Your task to perform on an android device: Open calendar and show me the first week of next month Image 0: 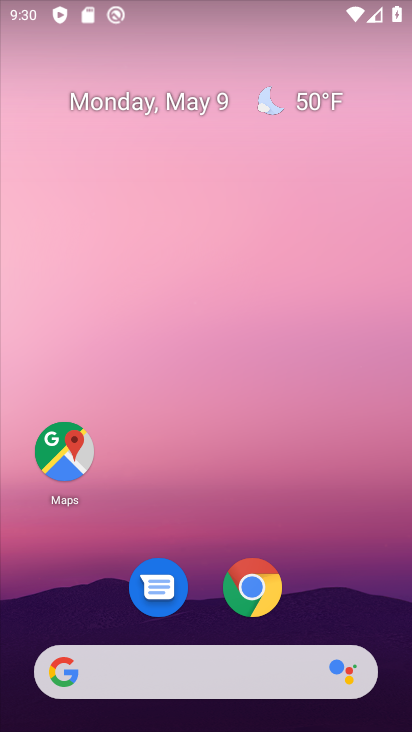
Step 0: drag from (205, 725) to (218, 187)
Your task to perform on an android device: Open calendar and show me the first week of next month Image 1: 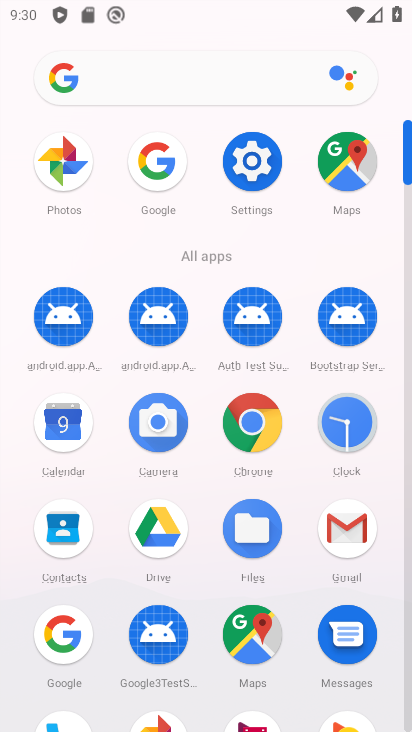
Step 1: click (59, 424)
Your task to perform on an android device: Open calendar and show me the first week of next month Image 2: 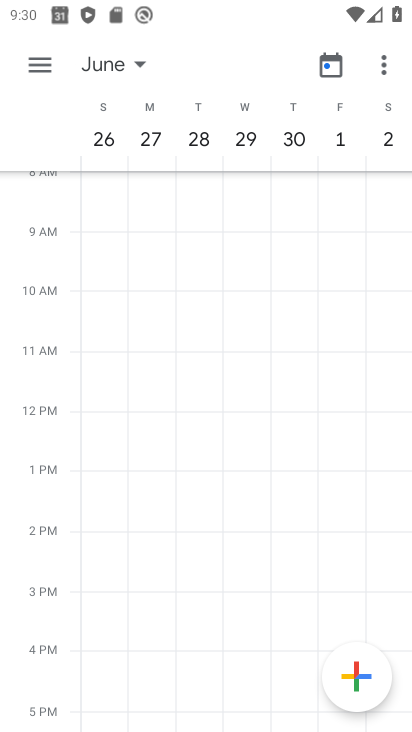
Step 2: click (119, 58)
Your task to perform on an android device: Open calendar and show me the first week of next month Image 3: 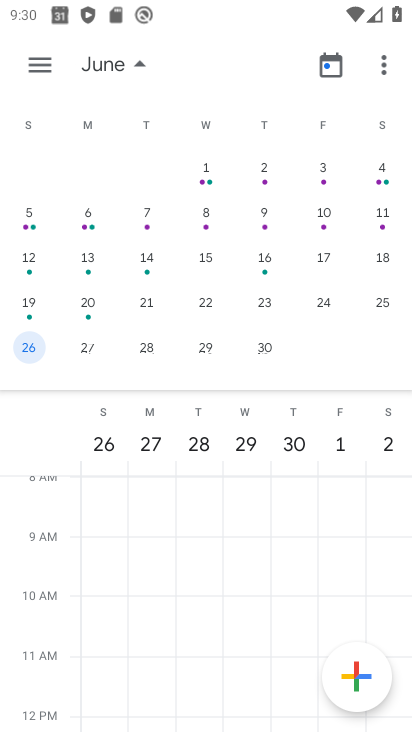
Step 3: click (88, 213)
Your task to perform on an android device: Open calendar and show me the first week of next month Image 4: 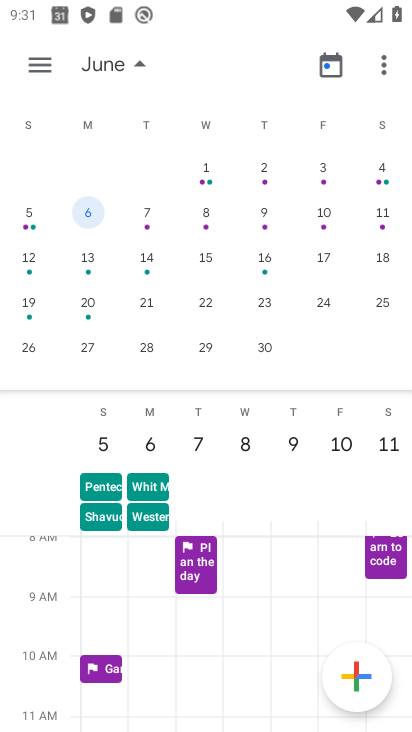
Step 4: task complete